Your task to perform on an android device: Open calendar and show me the third week of next month Image 0: 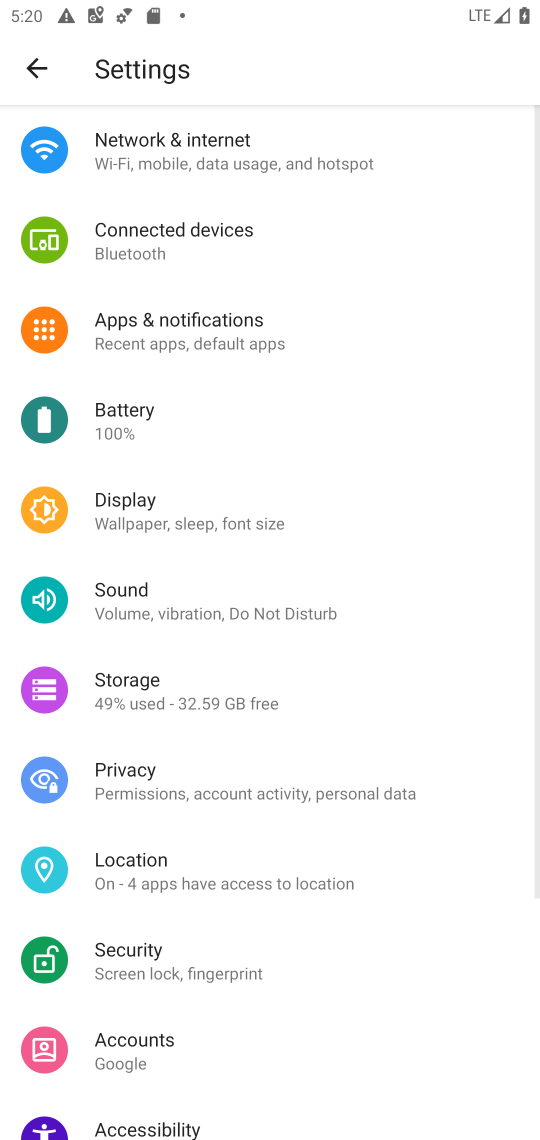
Step 0: press home button
Your task to perform on an android device: Open calendar and show me the third week of next month Image 1: 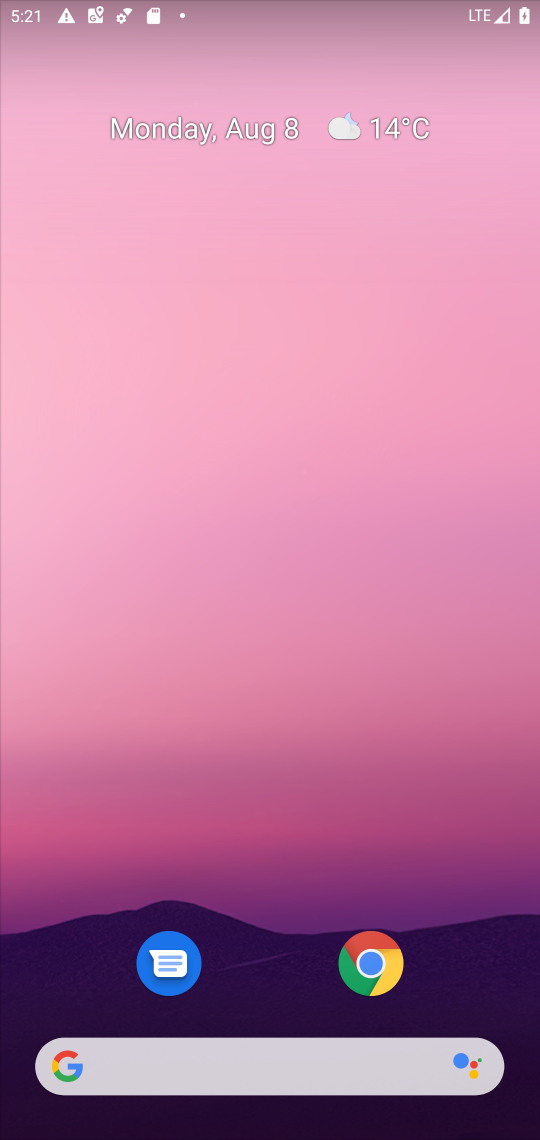
Step 1: drag from (268, 897) to (243, 160)
Your task to perform on an android device: Open calendar and show me the third week of next month Image 2: 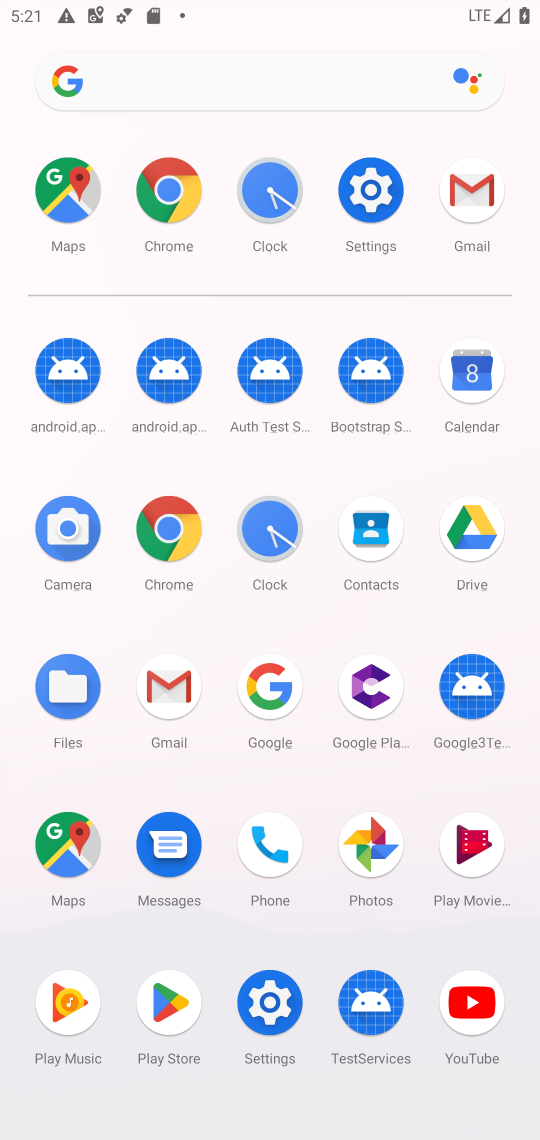
Step 2: click (484, 375)
Your task to perform on an android device: Open calendar and show me the third week of next month Image 3: 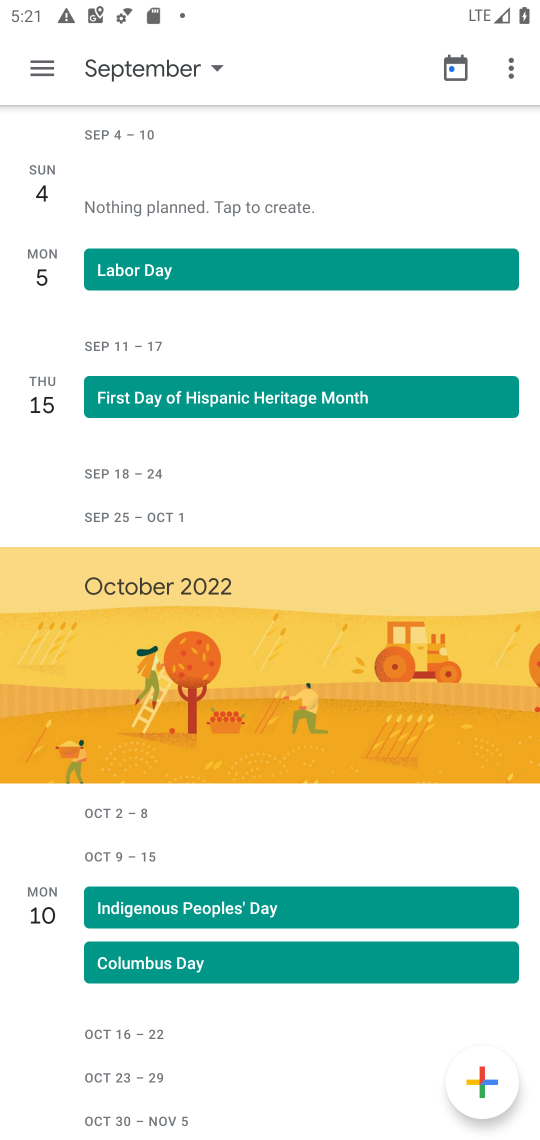
Step 3: click (189, 62)
Your task to perform on an android device: Open calendar and show me the third week of next month Image 4: 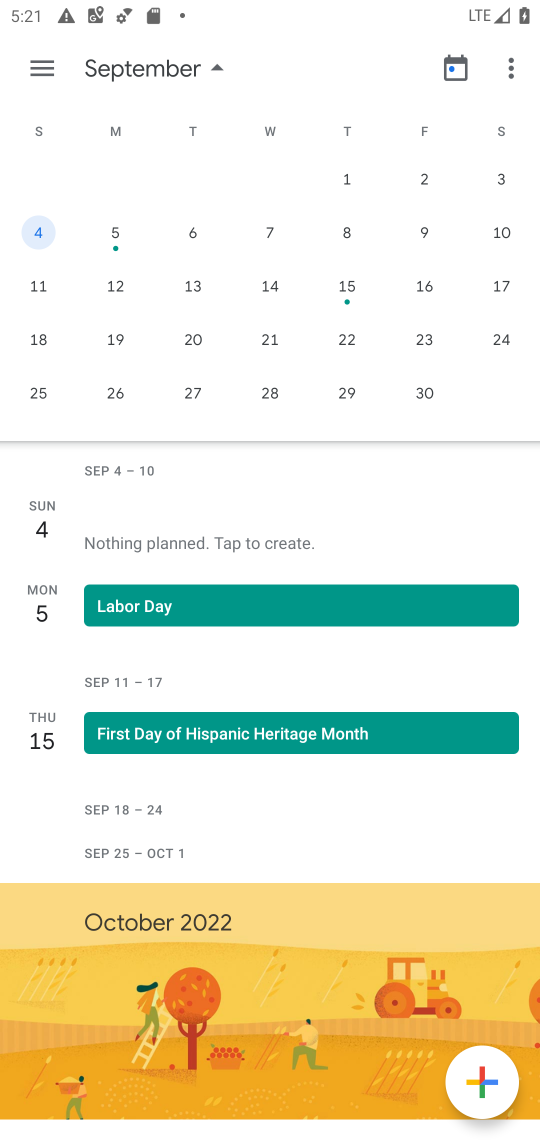
Step 4: click (43, 279)
Your task to perform on an android device: Open calendar and show me the third week of next month Image 5: 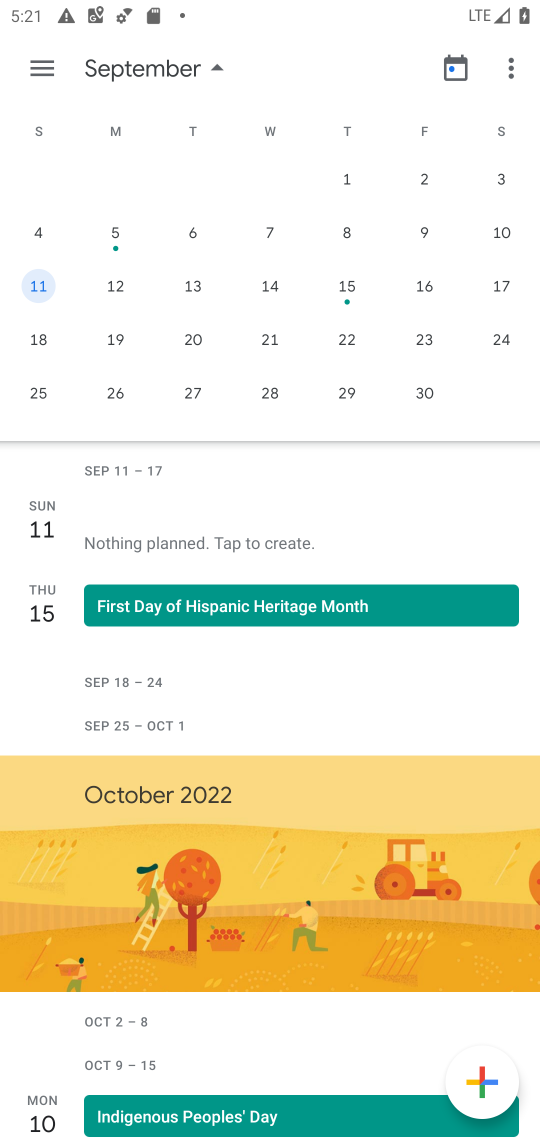
Step 5: task complete